Your task to perform on an android device: delete the emails in spam in the gmail app Image 0: 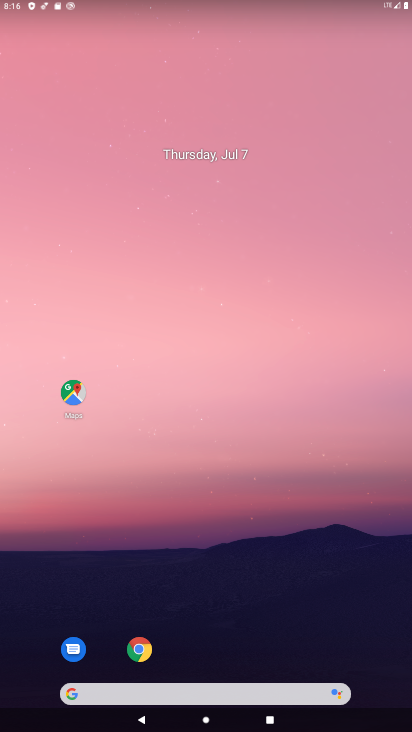
Step 0: drag from (218, 549) to (128, 59)
Your task to perform on an android device: delete the emails in spam in the gmail app Image 1: 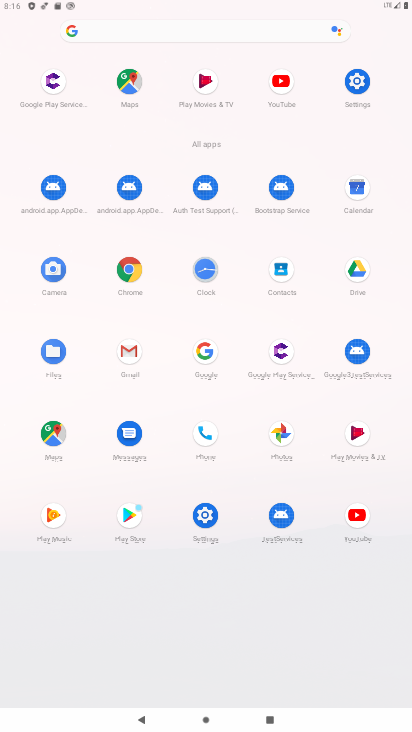
Step 1: click (126, 349)
Your task to perform on an android device: delete the emails in spam in the gmail app Image 2: 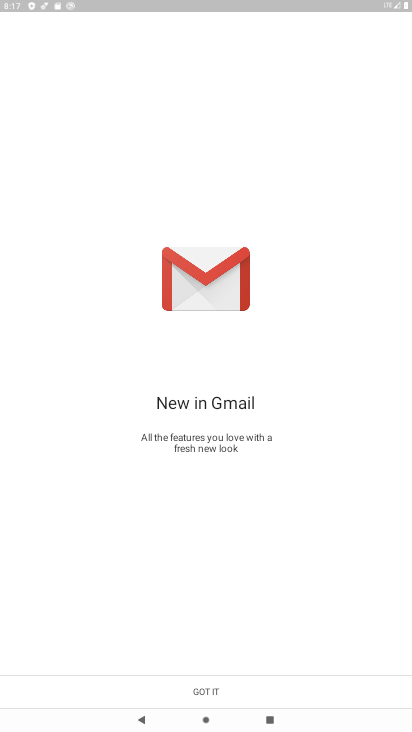
Step 2: click (202, 689)
Your task to perform on an android device: delete the emails in spam in the gmail app Image 3: 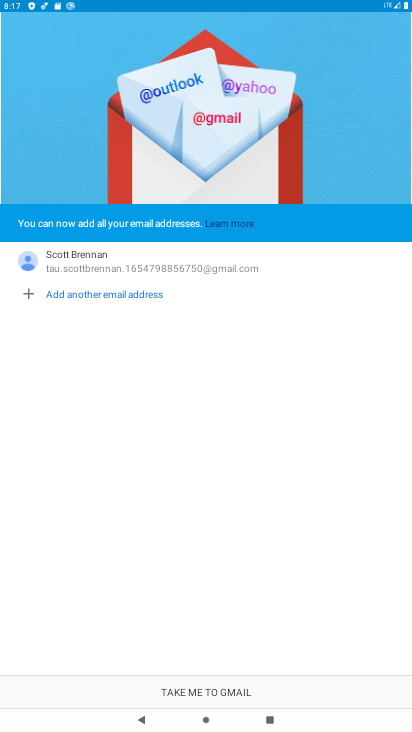
Step 3: click (202, 689)
Your task to perform on an android device: delete the emails in spam in the gmail app Image 4: 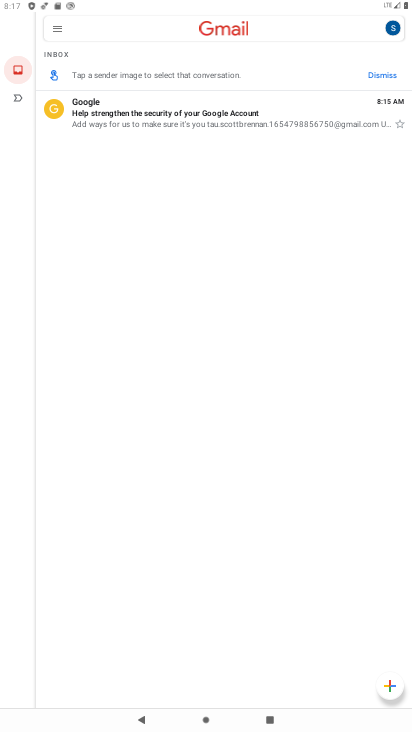
Step 4: click (53, 27)
Your task to perform on an android device: delete the emails in spam in the gmail app Image 5: 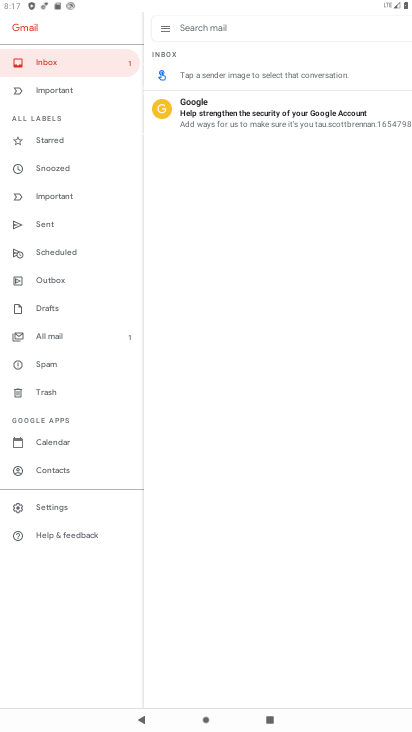
Step 5: click (49, 361)
Your task to perform on an android device: delete the emails in spam in the gmail app Image 6: 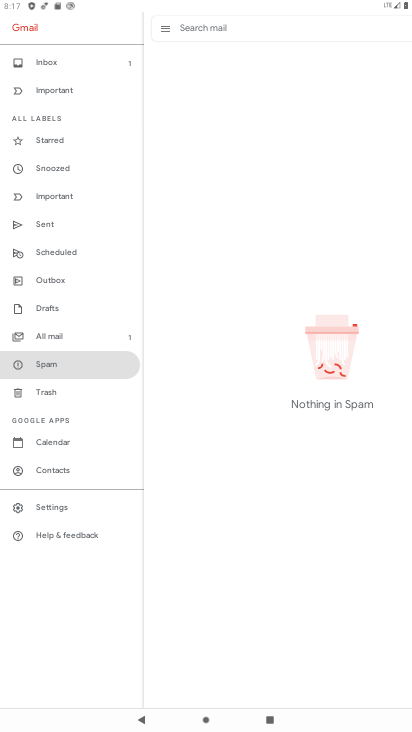
Step 6: task complete